Your task to perform on an android device: Open eBay Image 0: 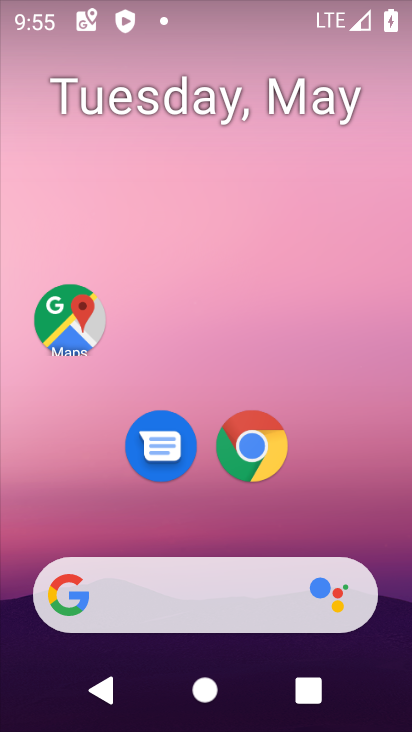
Step 0: click (254, 460)
Your task to perform on an android device: Open eBay Image 1: 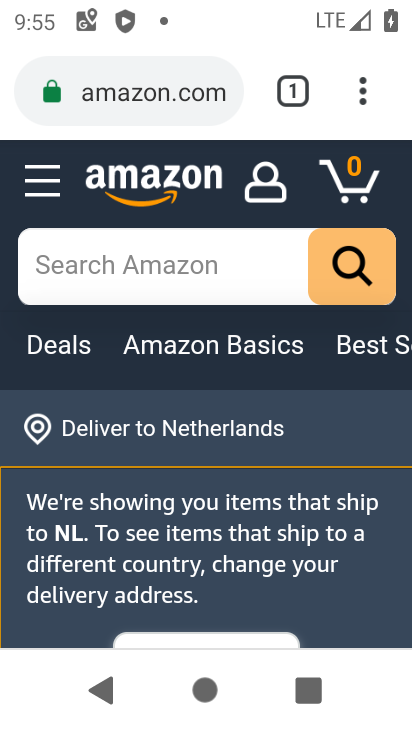
Step 1: click (195, 90)
Your task to perform on an android device: Open eBay Image 2: 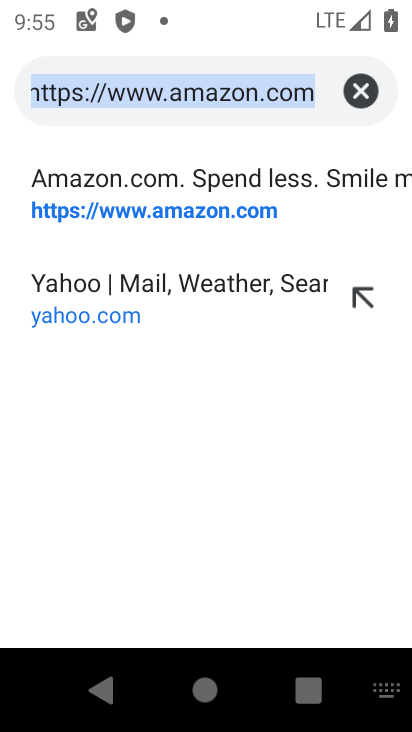
Step 2: type "ebay"
Your task to perform on an android device: Open eBay Image 3: 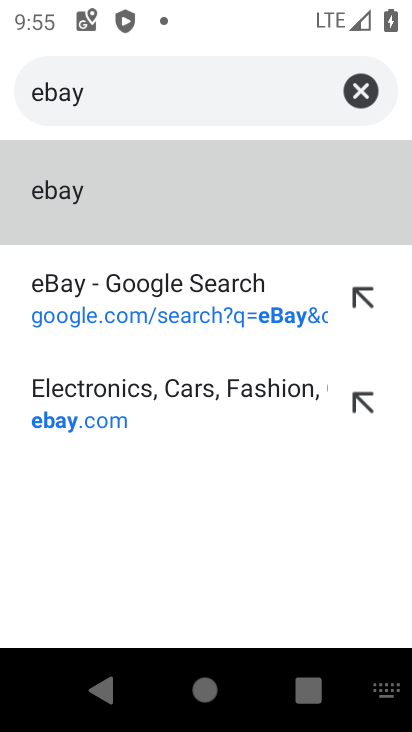
Step 3: click (162, 397)
Your task to perform on an android device: Open eBay Image 4: 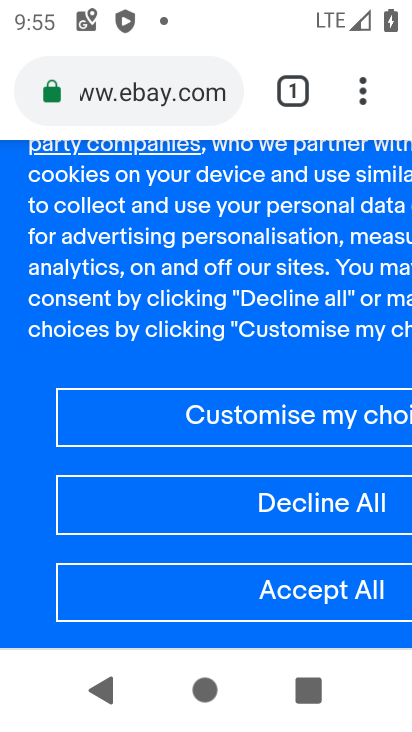
Step 4: task complete